Your task to perform on an android device: open app "Expedia: Hotels, Flights & Car" (install if not already installed) and go to login screen Image 0: 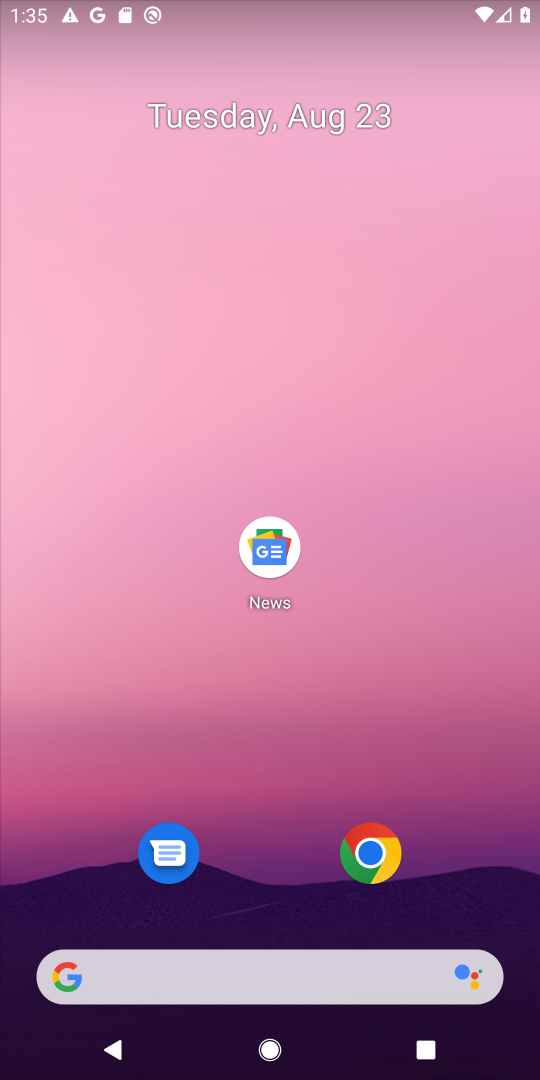
Step 0: drag from (474, 910) to (418, 101)
Your task to perform on an android device: open app "Expedia: Hotels, Flights & Car" (install if not already installed) and go to login screen Image 1: 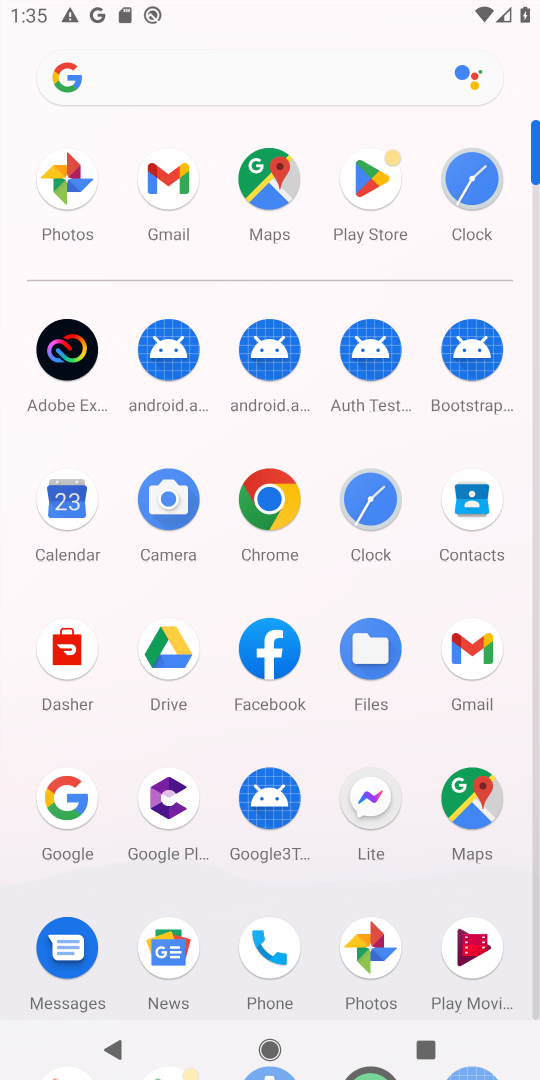
Step 1: drag from (320, 873) to (332, 352)
Your task to perform on an android device: open app "Expedia: Hotels, Flights & Car" (install if not already installed) and go to login screen Image 2: 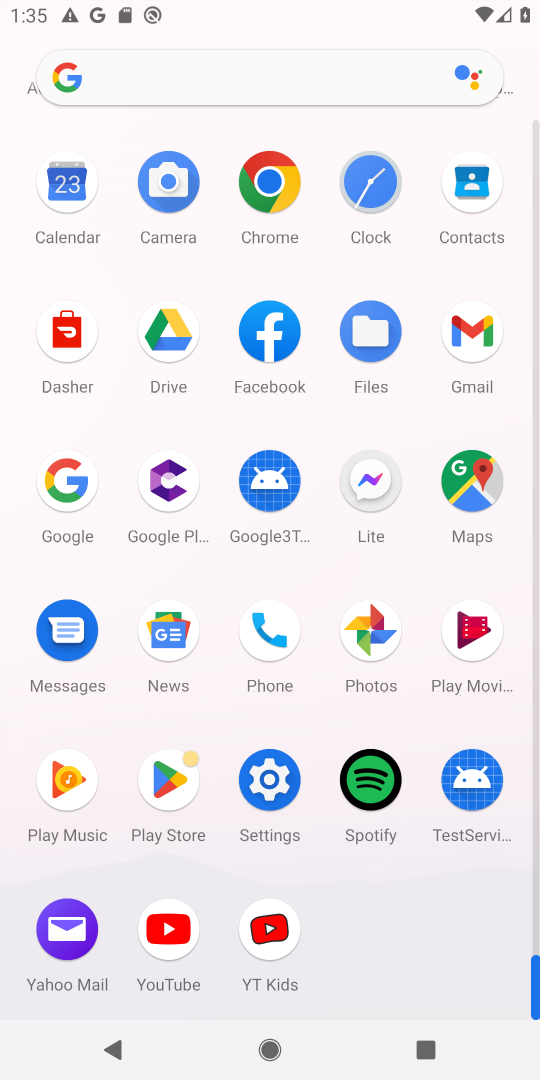
Step 2: click (172, 778)
Your task to perform on an android device: open app "Expedia: Hotels, Flights & Car" (install if not already installed) and go to login screen Image 3: 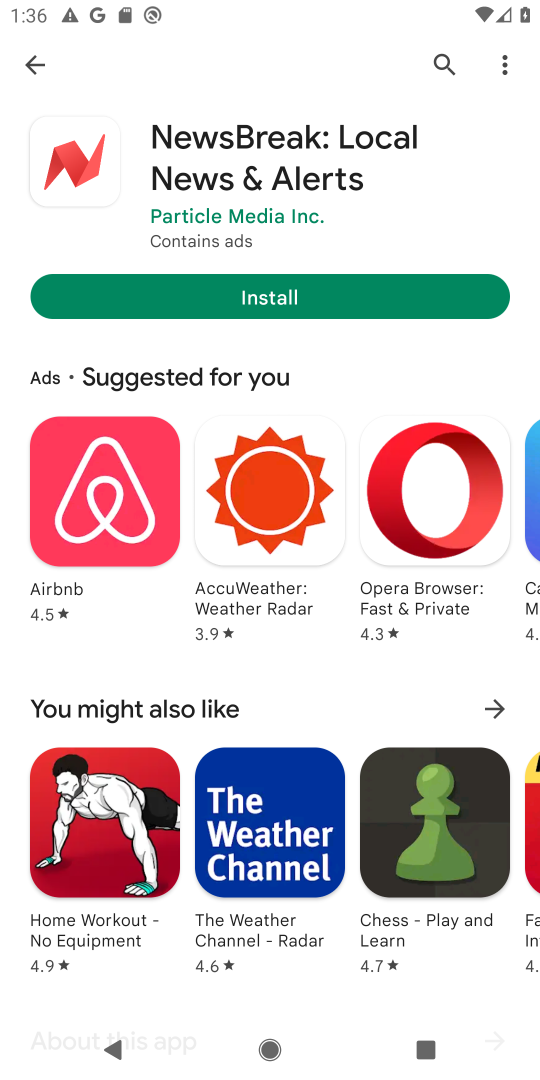
Step 3: click (438, 54)
Your task to perform on an android device: open app "Expedia: Hotels, Flights & Car" (install if not already installed) and go to login screen Image 4: 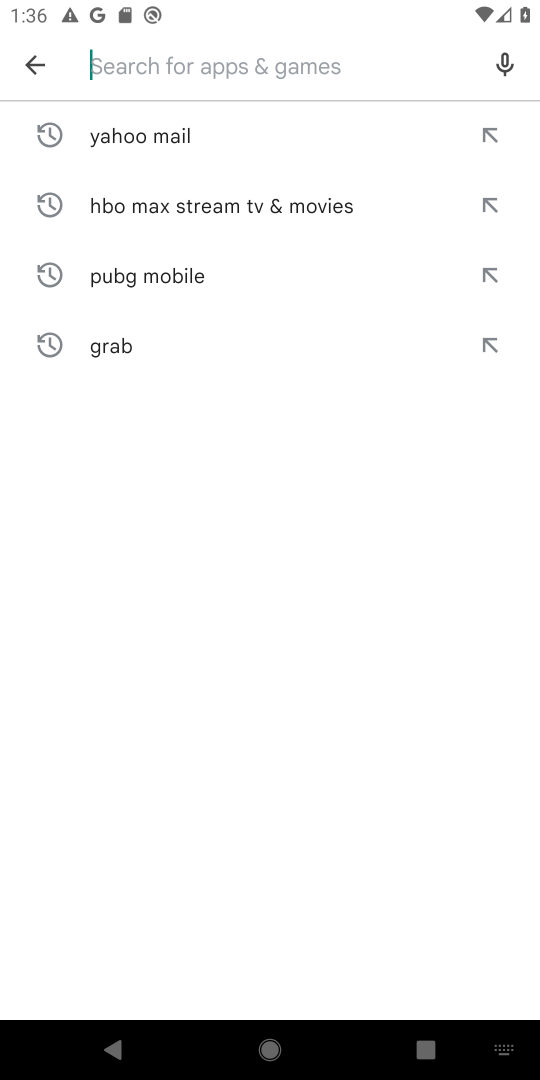
Step 4: type "Expedia: Hotels, Flights & Car"
Your task to perform on an android device: open app "Expedia: Hotels, Flights & Car" (install if not already installed) and go to login screen Image 5: 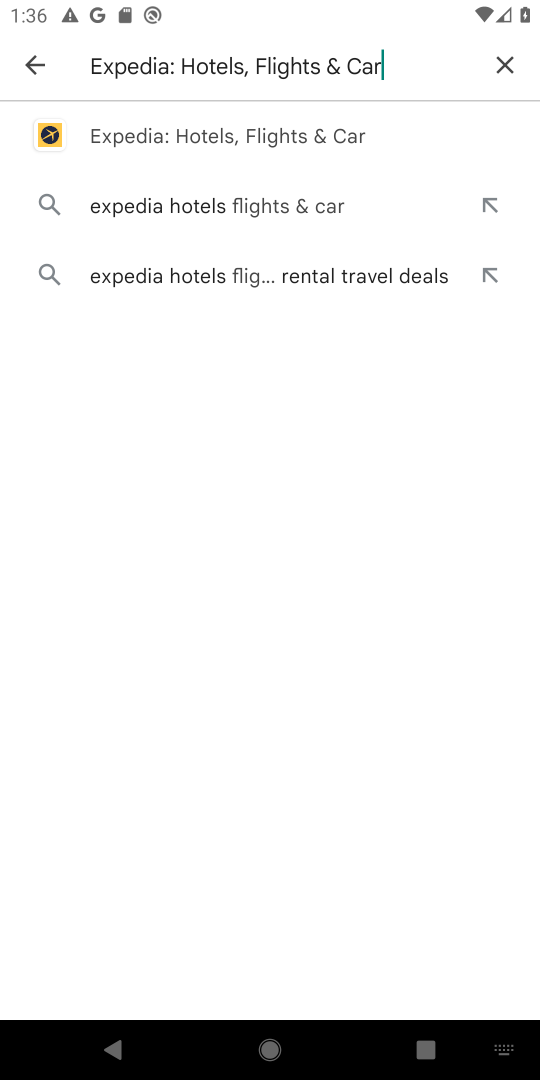
Step 5: click (144, 134)
Your task to perform on an android device: open app "Expedia: Hotels, Flights & Car" (install if not already installed) and go to login screen Image 6: 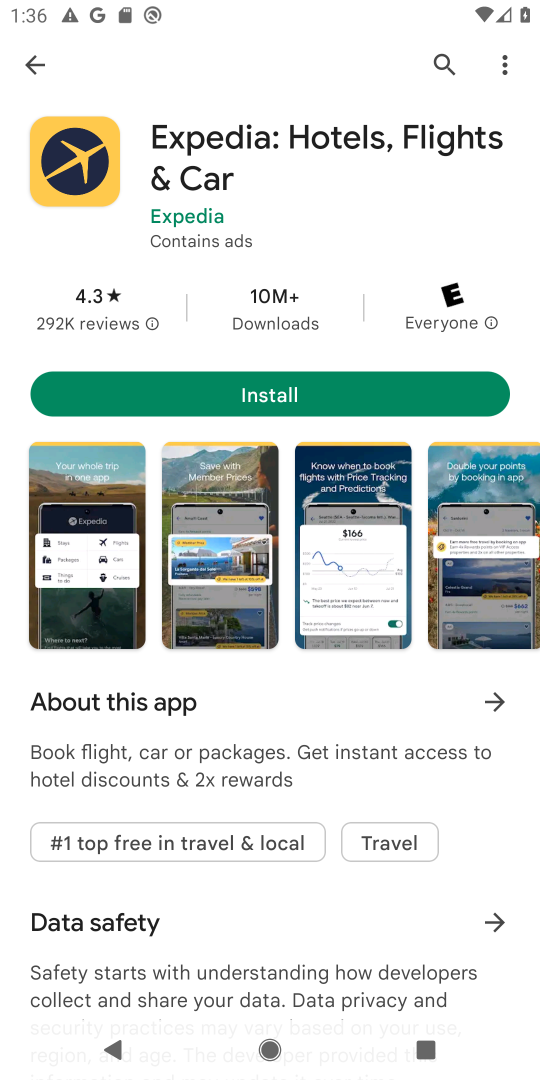
Step 6: click (275, 390)
Your task to perform on an android device: open app "Expedia: Hotels, Flights & Car" (install if not already installed) and go to login screen Image 7: 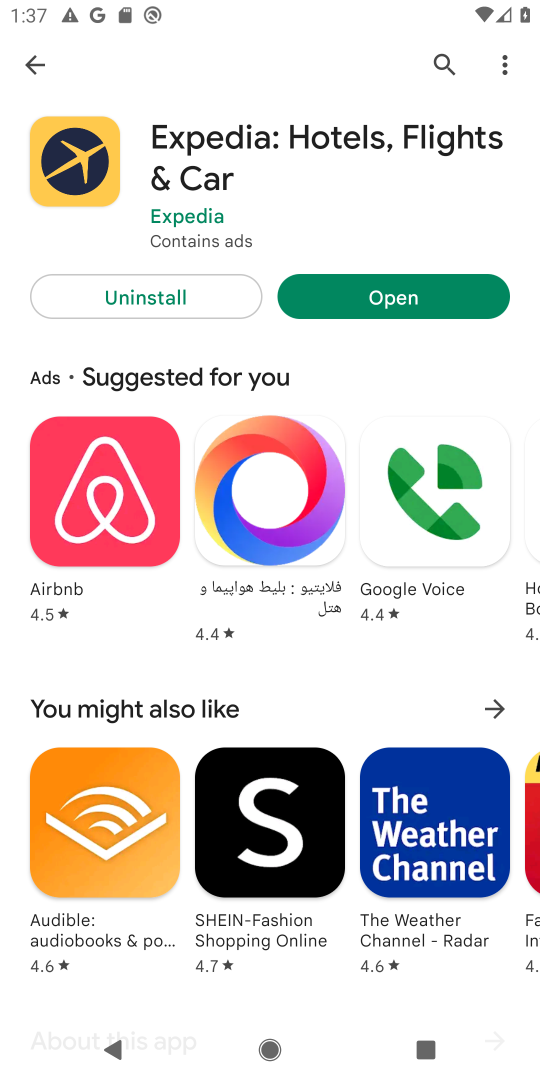
Step 7: click (393, 287)
Your task to perform on an android device: open app "Expedia: Hotels, Flights & Car" (install if not already installed) and go to login screen Image 8: 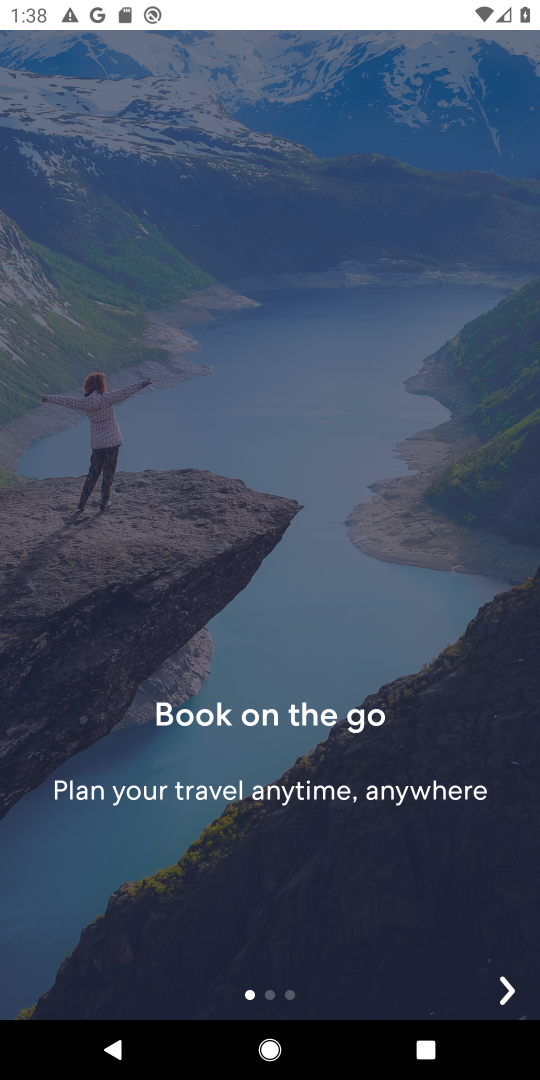
Step 8: task complete